Your task to perform on an android device: Turn off the flashlight Image 0: 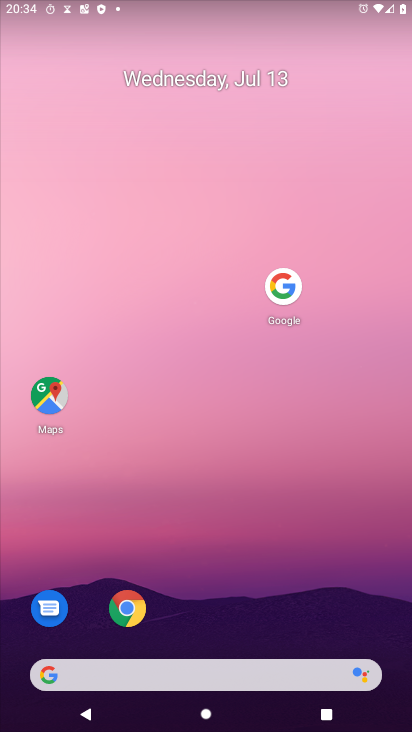
Step 0: drag from (192, 634) to (163, 104)
Your task to perform on an android device: Turn off the flashlight Image 1: 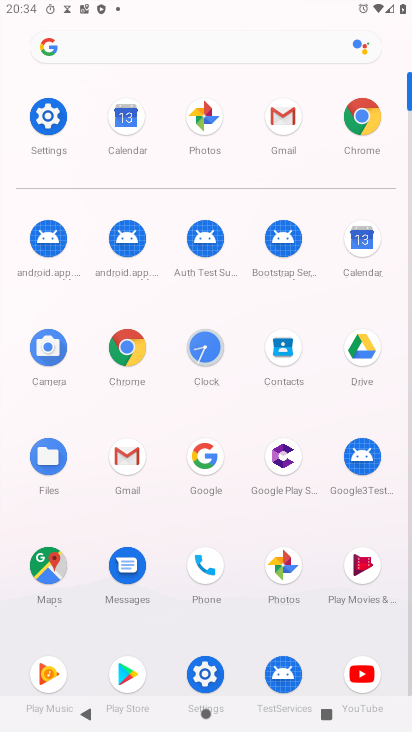
Step 1: click (49, 126)
Your task to perform on an android device: Turn off the flashlight Image 2: 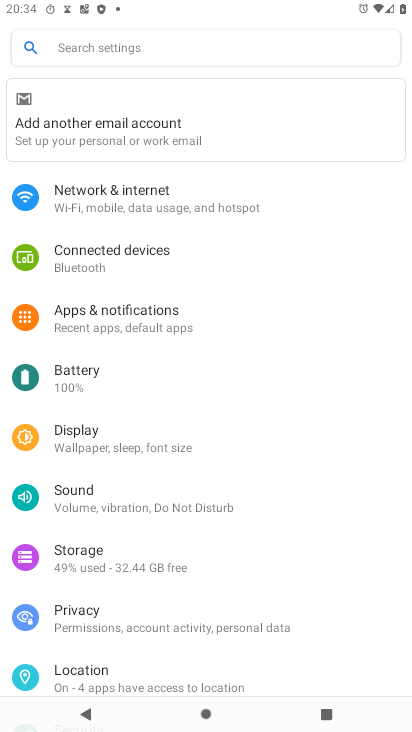
Step 2: task complete